Your task to perform on an android device: Go to display settings Image 0: 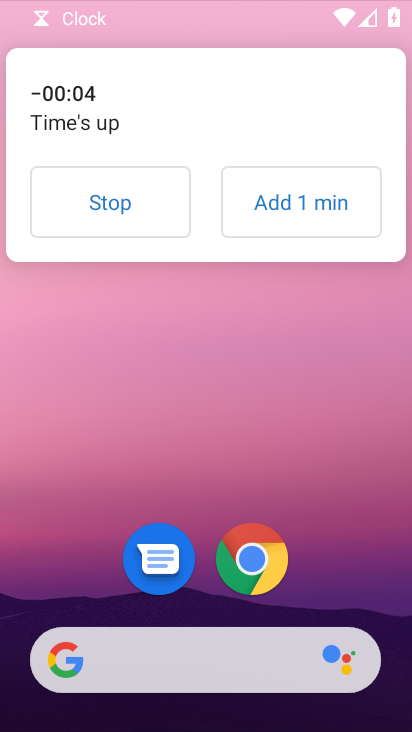
Step 0: click (158, 223)
Your task to perform on an android device: Go to display settings Image 1: 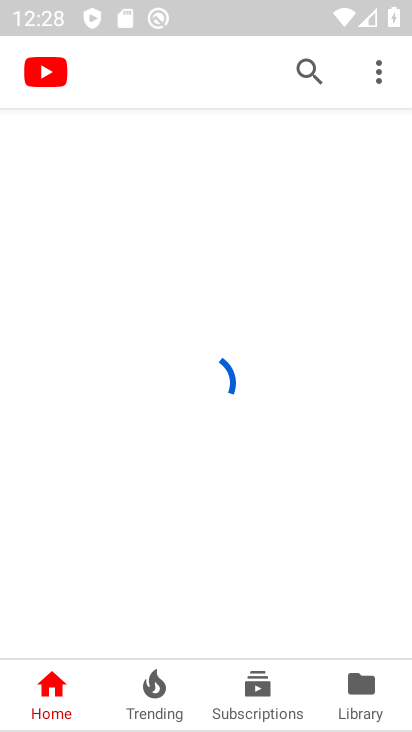
Step 1: press home button
Your task to perform on an android device: Go to display settings Image 2: 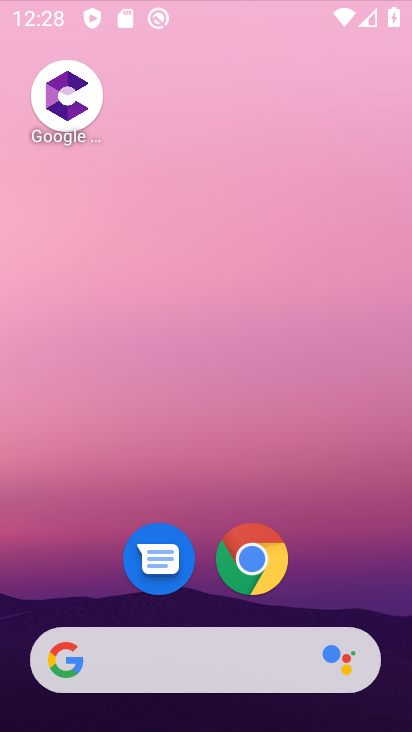
Step 2: drag from (191, 697) to (269, 122)
Your task to perform on an android device: Go to display settings Image 3: 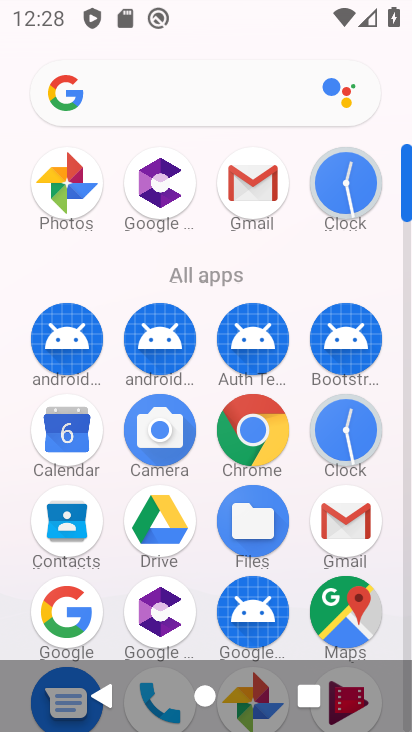
Step 3: drag from (212, 525) to (229, 326)
Your task to perform on an android device: Go to display settings Image 4: 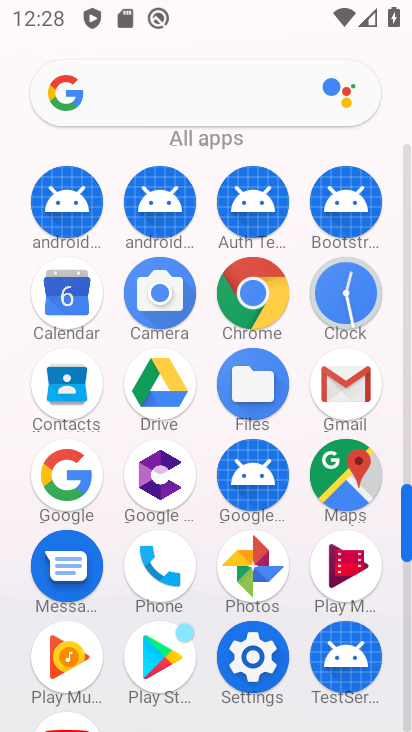
Step 4: click (244, 675)
Your task to perform on an android device: Go to display settings Image 5: 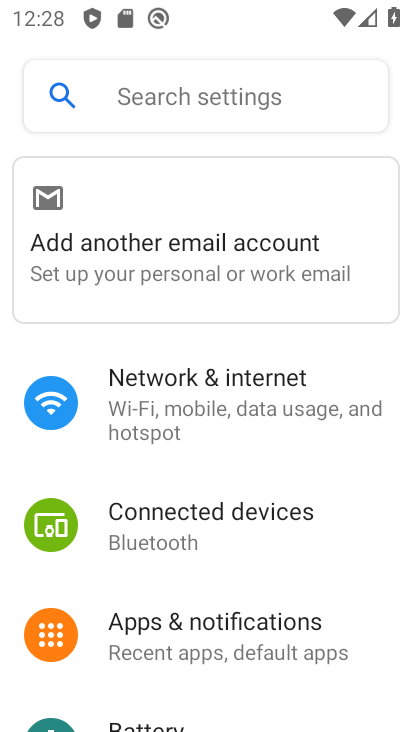
Step 5: drag from (177, 532) to (202, 182)
Your task to perform on an android device: Go to display settings Image 6: 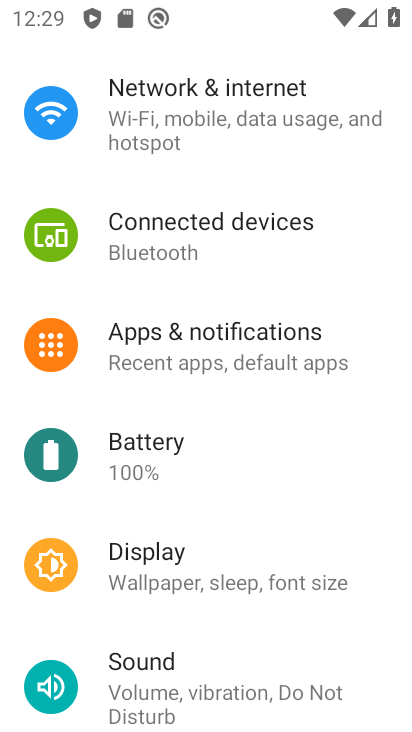
Step 6: click (183, 574)
Your task to perform on an android device: Go to display settings Image 7: 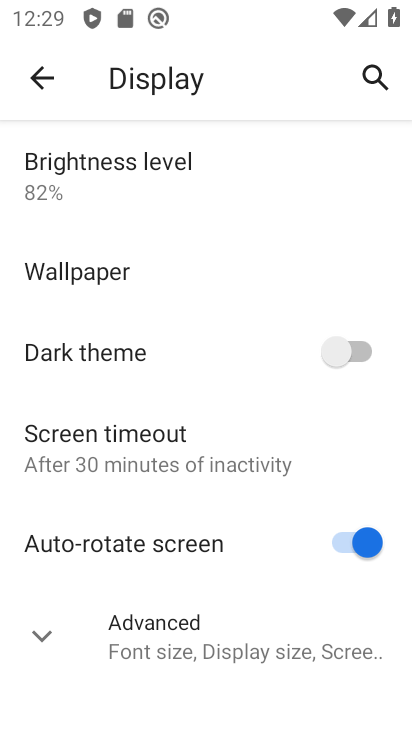
Step 7: task complete